Your task to perform on an android device: turn on notifications settings in the gmail app Image 0: 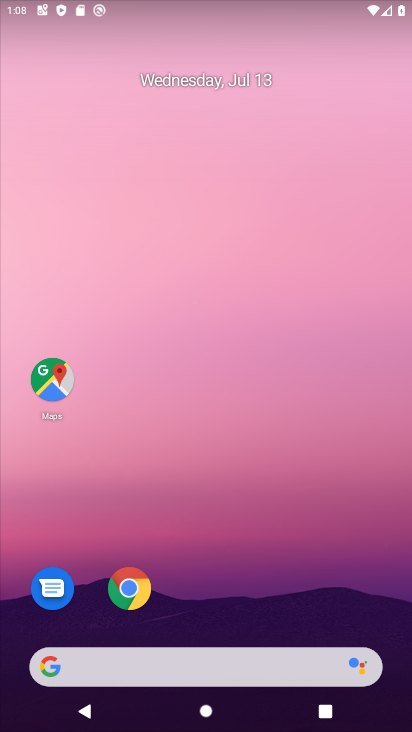
Step 0: drag from (212, 640) to (193, 243)
Your task to perform on an android device: turn on notifications settings in the gmail app Image 1: 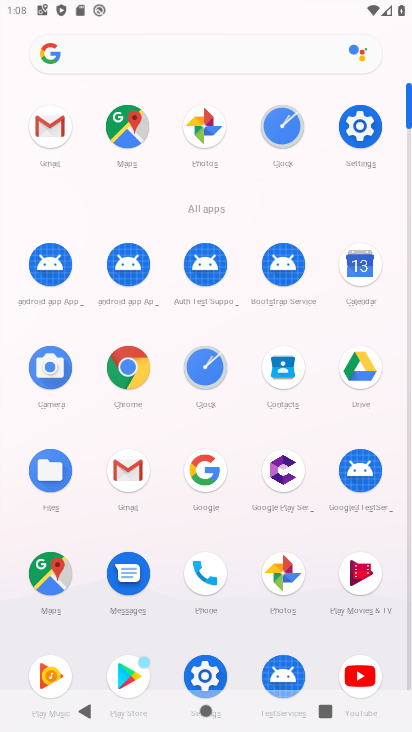
Step 1: click (135, 470)
Your task to perform on an android device: turn on notifications settings in the gmail app Image 2: 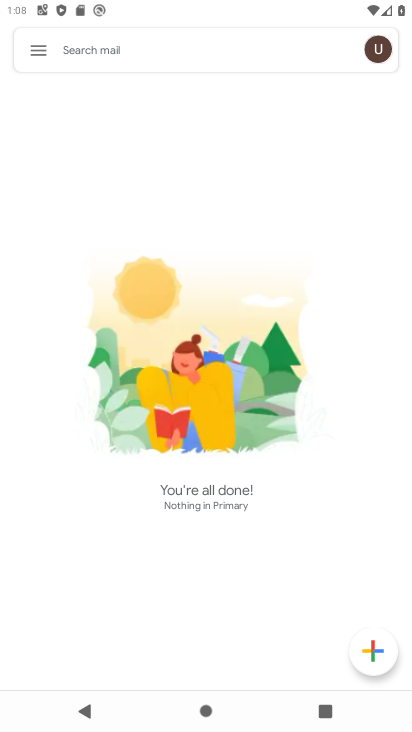
Step 2: click (45, 49)
Your task to perform on an android device: turn on notifications settings in the gmail app Image 3: 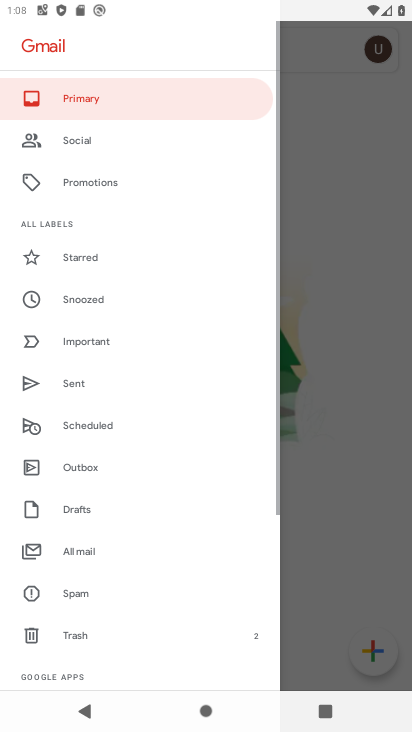
Step 3: drag from (91, 640) to (95, 291)
Your task to perform on an android device: turn on notifications settings in the gmail app Image 4: 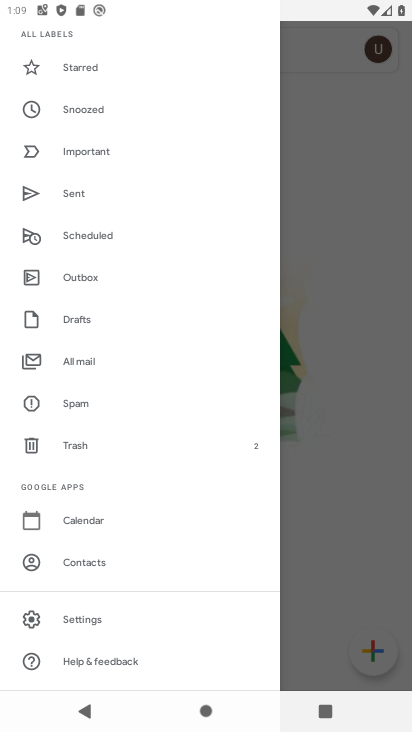
Step 4: click (93, 618)
Your task to perform on an android device: turn on notifications settings in the gmail app Image 5: 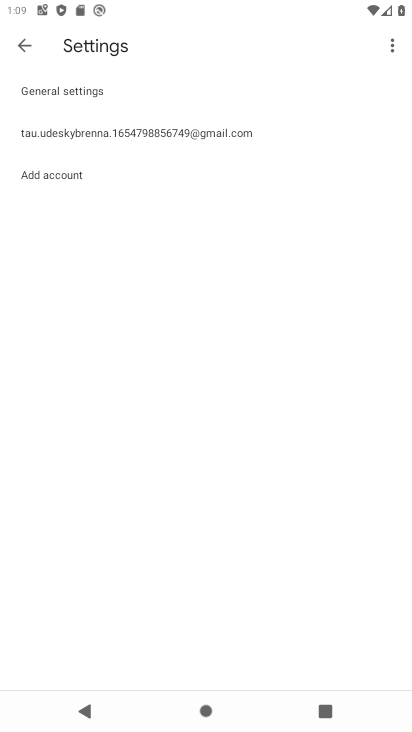
Step 5: click (97, 126)
Your task to perform on an android device: turn on notifications settings in the gmail app Image 6: 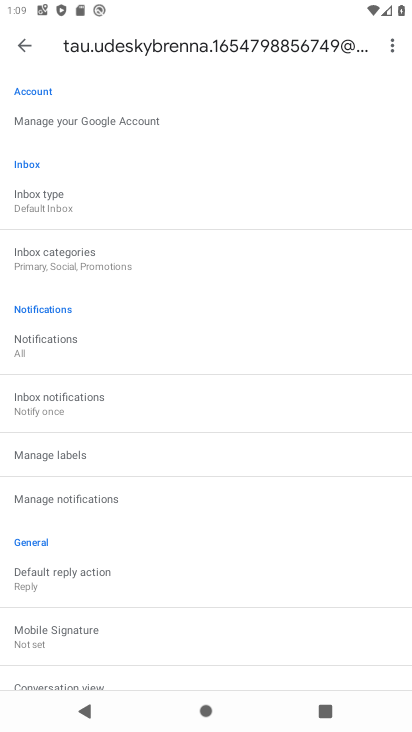
Step 6: click (79, 502)
Your task to perform on an android device: turn on notifications settings in the gmail app Image 7: 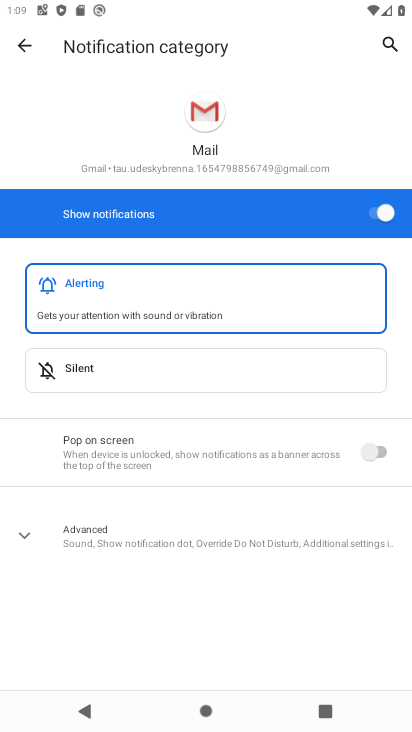
Step 7: task complete